Your task to perform on an android device: Go to notification settings Image 0: 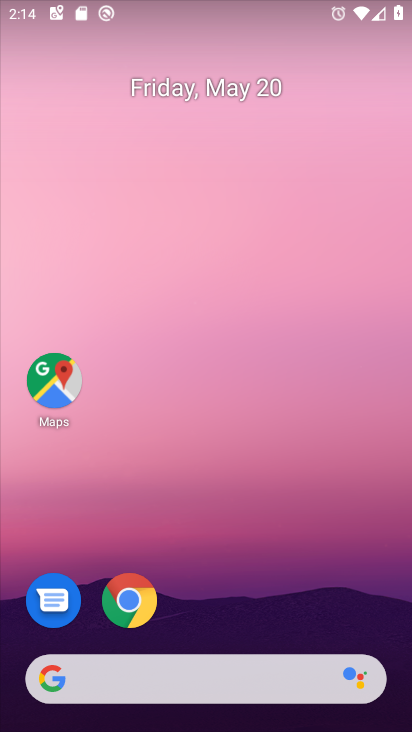
Step 0: drag from (199, 619) to (241, 277)
Your task to perform on an android device: Go to notification settings Image 1: 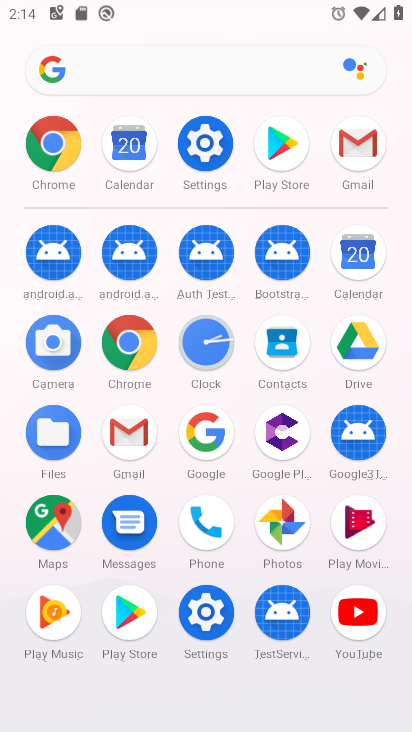
Step 1: click (209, 608)
Your task to perform on an android device: Go to notification settings Image 2: 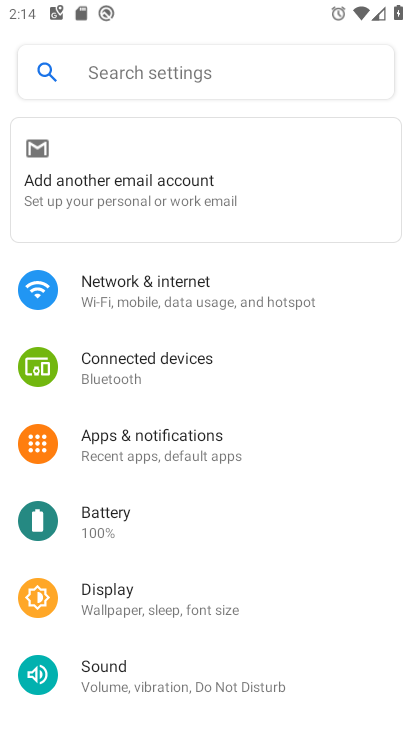
Step 2: click (189, 448)
Your task to perform on an android device: Go to notification settings Image 3: 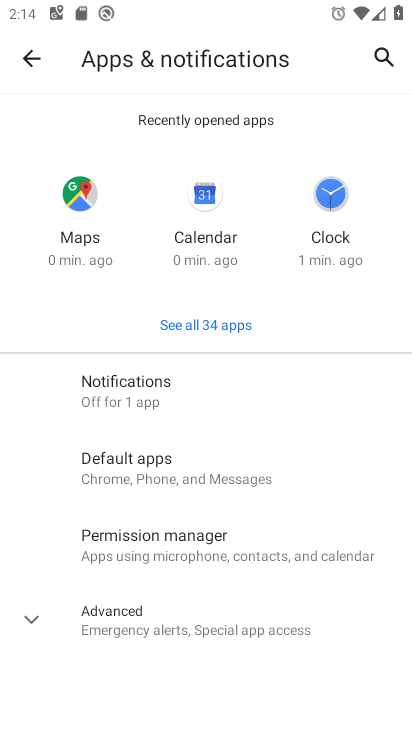
Step 3: click (149, 383)
Your task to perform on an android device: Go to notification settings Image 4: 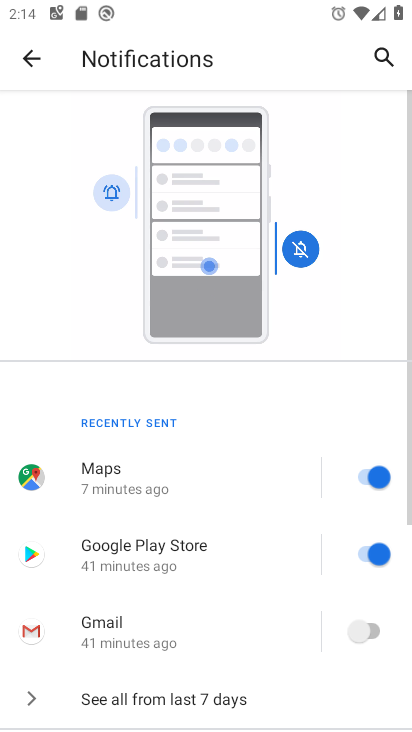
Step 4: task complete